Your task to perform on an android device: Search for hotels in Philadelphia Image 0: 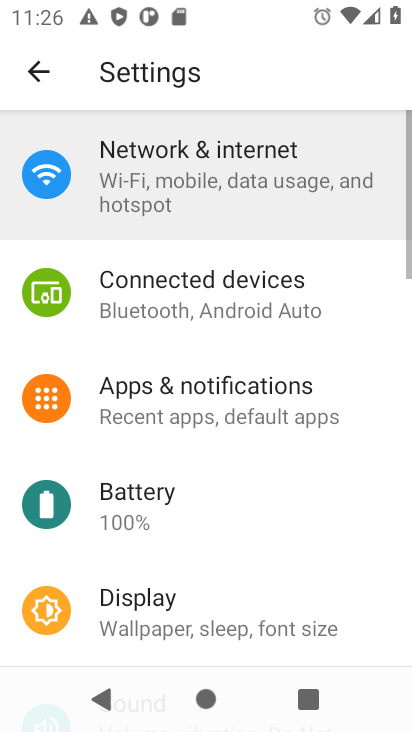
Step 0: press home button
Your task to perform on an android device: Search for hotels in Philadelphia Image 1: 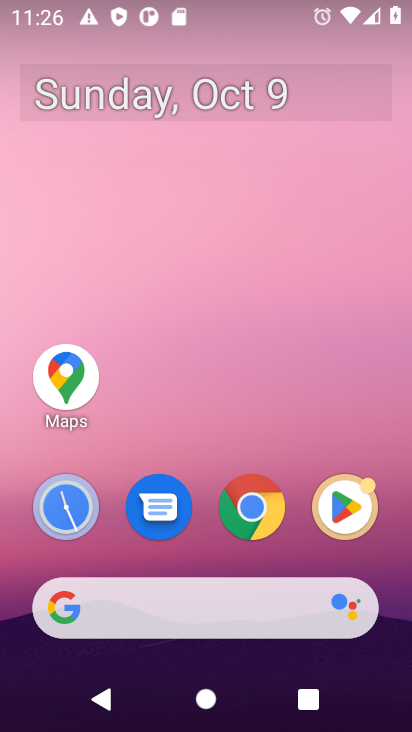
Step 1: click (268, 599)
Your task to perform on an android device: Search for hotels in Philadelphia Image 2: 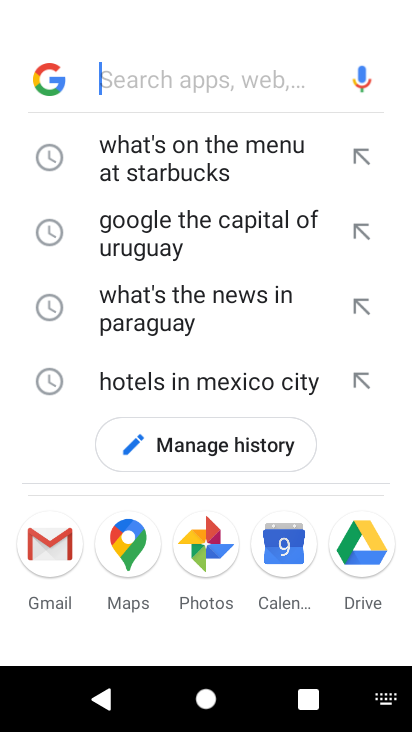
Step 2: type "hotels in Philadelphia"
Your task to perform on an android device: Search for hotels in Philadelphia Image 3: 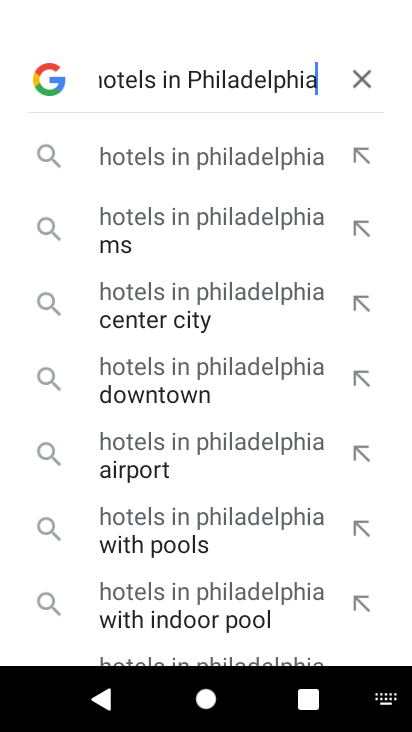
Step 3: press enter
Your task to perform on an android device: Search for hotels in Philadelphia Image 4: 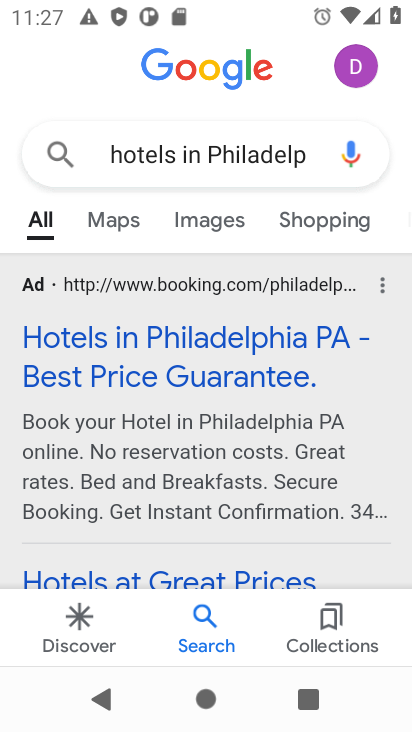
Step 4: drag from (231, 526) to (240, 388)
Your task to perform on an android device: Search for hotels in Philadelphia Image 5: 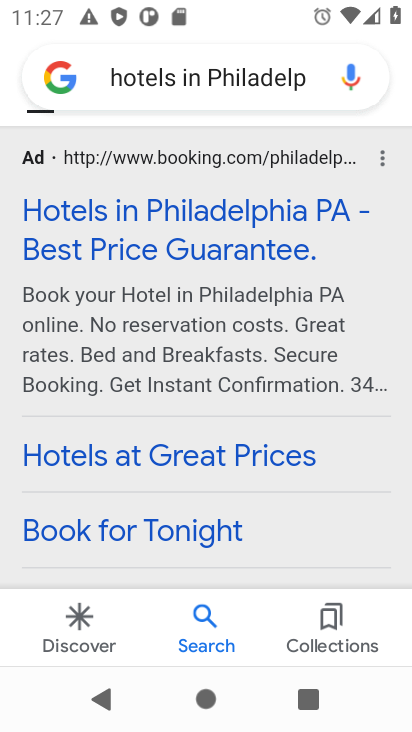
Step 5: click (248, 223)
Your task to perform on an android device: Search for hotels in Philadelphia Image 6: 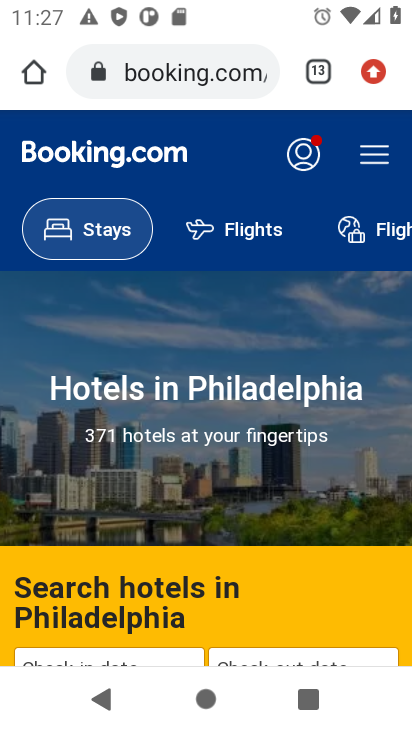
Step 6: task complete